Your task to perform on an android device: Add macbook to the cart on ebay Image 0: 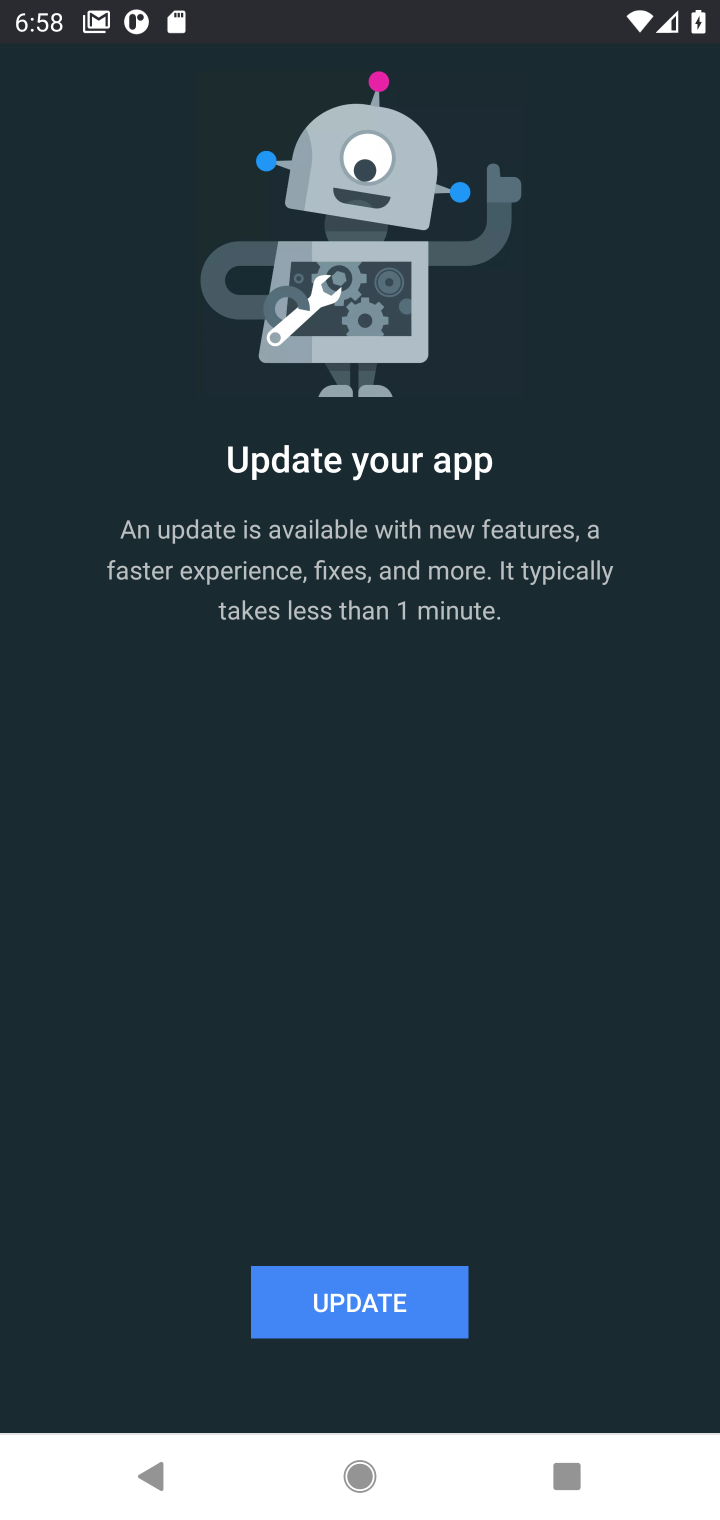
Step 0: press home button
Your task to perform on an android device: Add macbook to the cart on ebay Image 1: 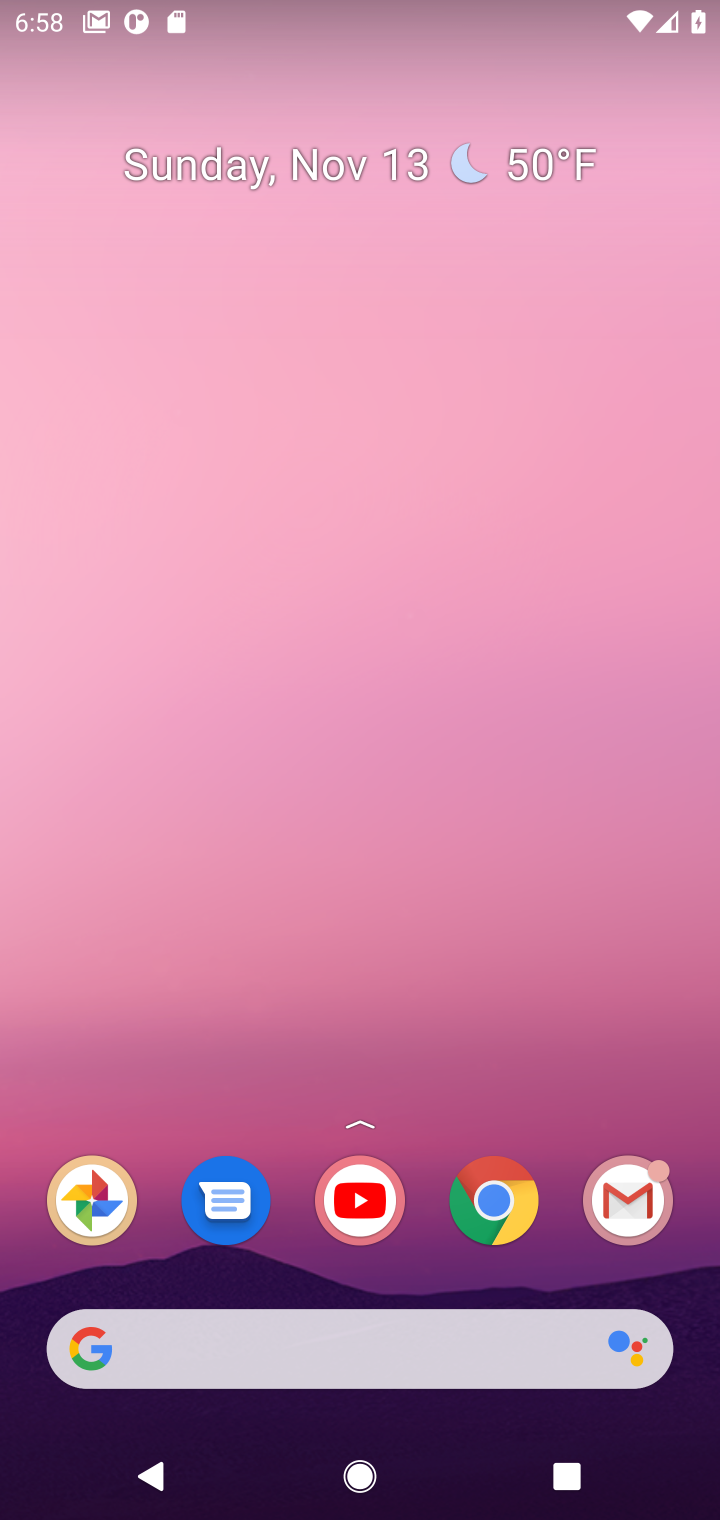
Step 1: click (494, 1191)
Your task to perform on an android device: Add macbook to the cart on ebay Image 2: 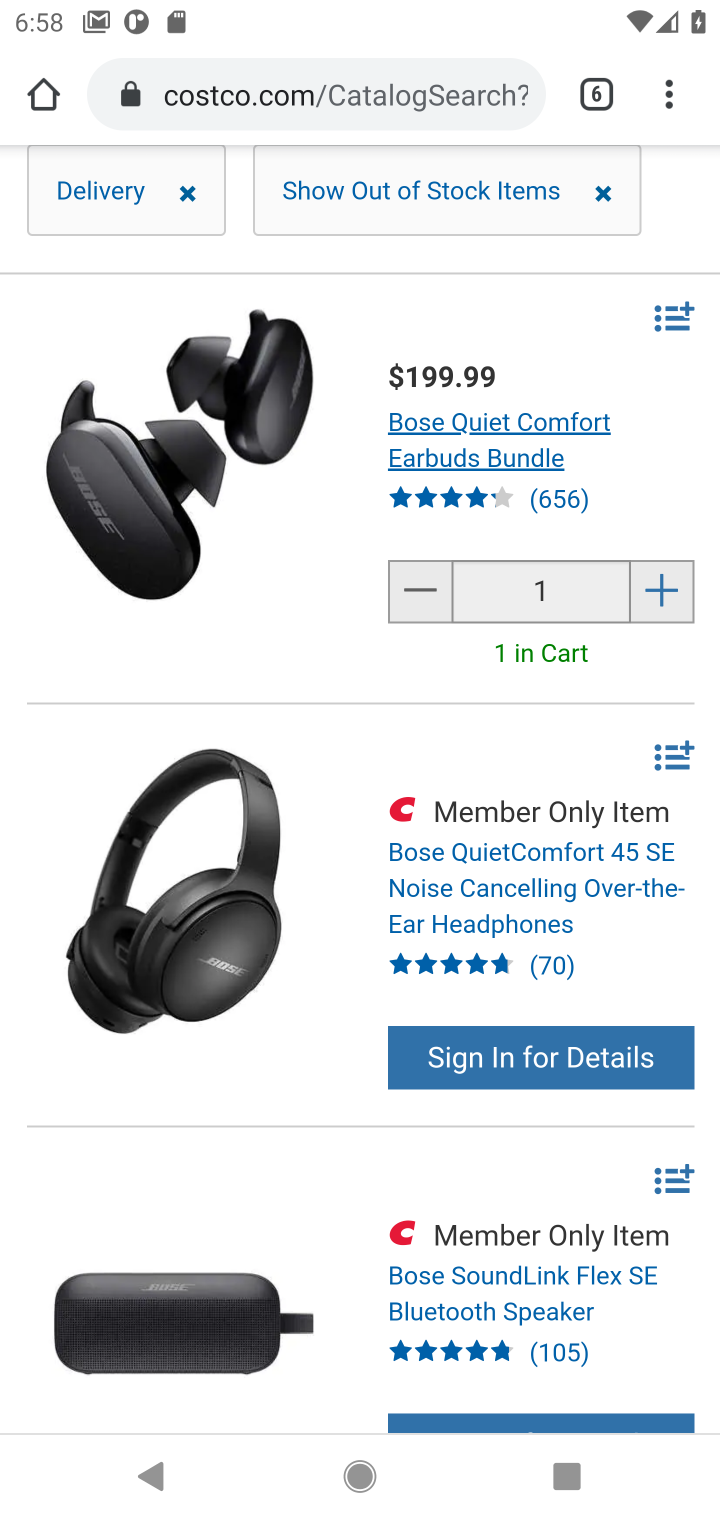
Step 2: click (601, 83)
Your task to perform on an android device: Add macbook to the cart on ebay Image 3: 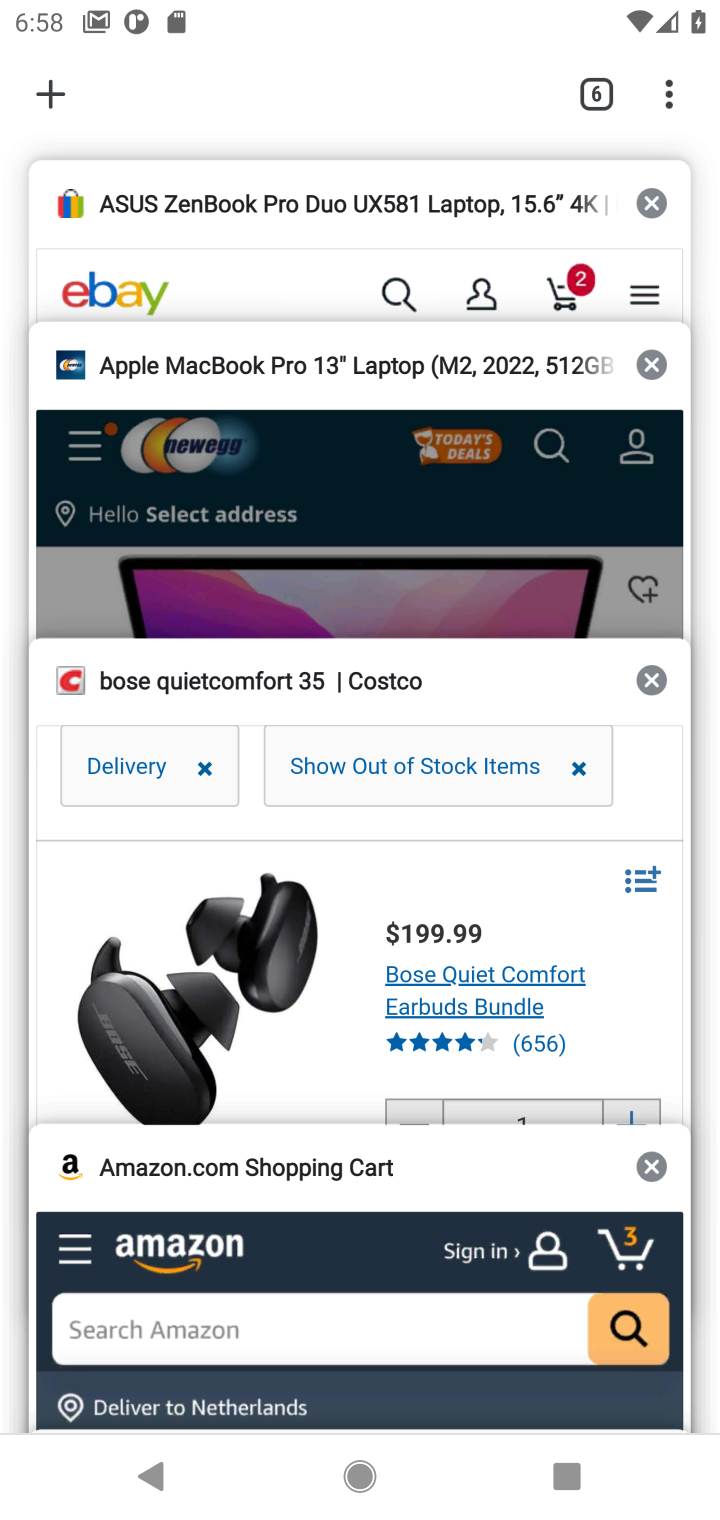
Step 3: click (346, 260)
Your task to perform on an android device: Add macbook to the cart on ebay Image 4: 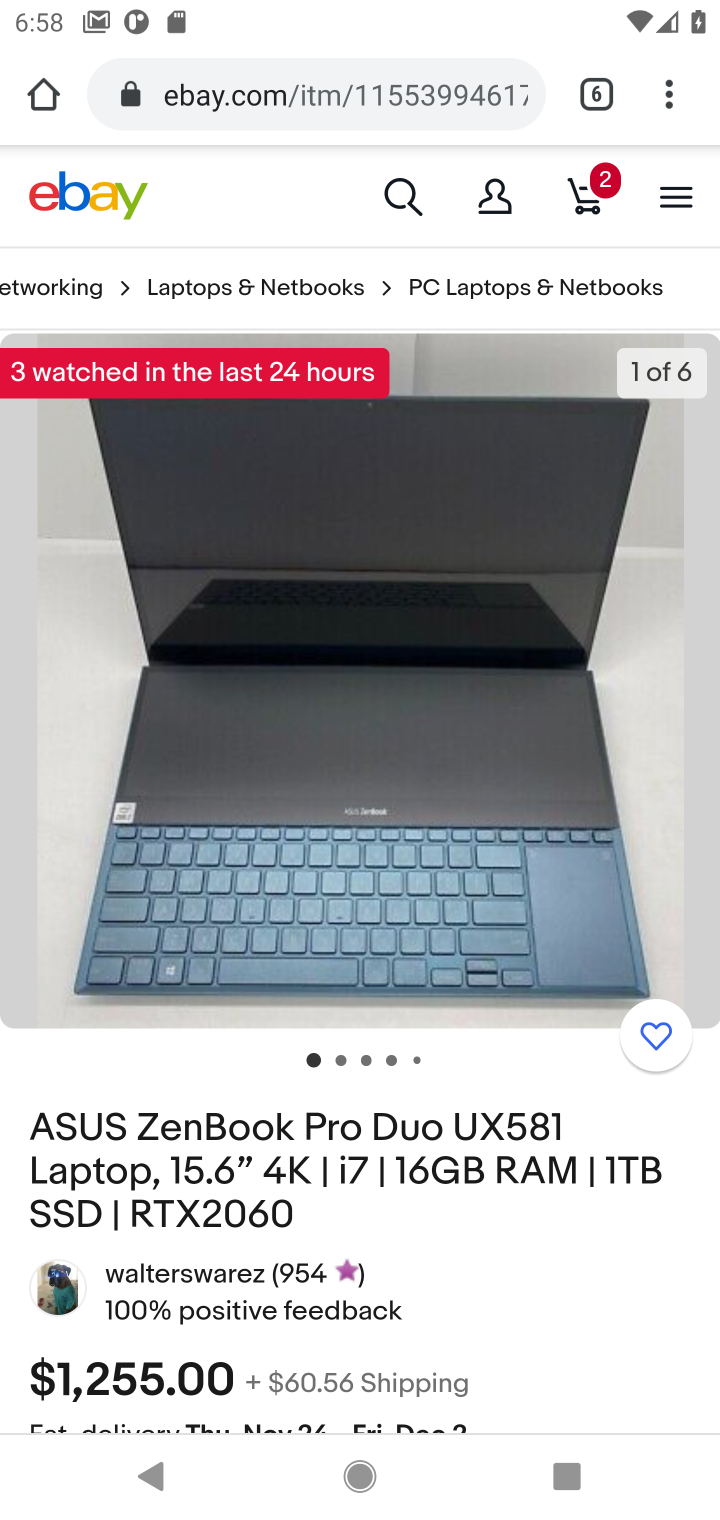
Step 4: click (391, 198)
Your task to perform on an android device: Add macbook to the cart on ebay Image 5: 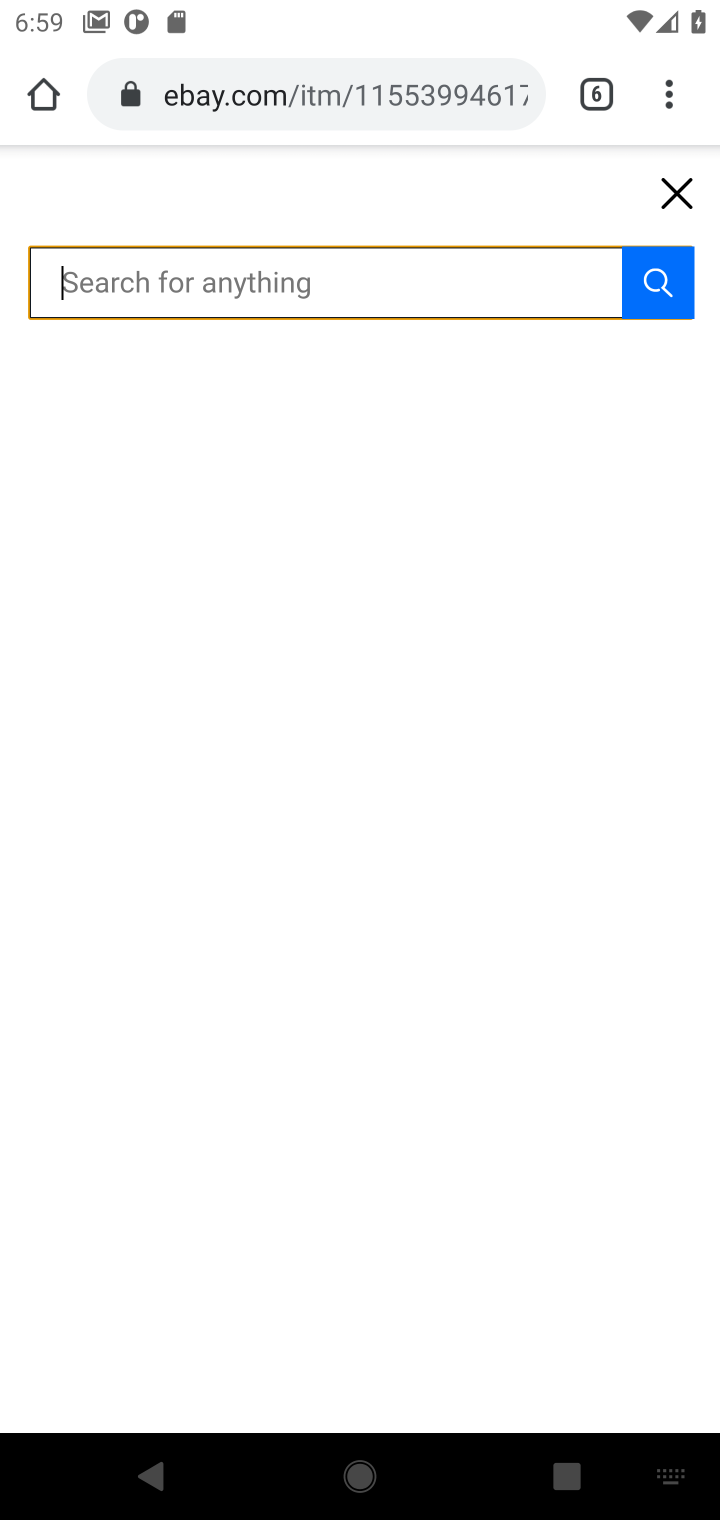
Step 5: type "macbook"
Your task to perform on an android device: Add macbook to the cart on ebay Image 6: 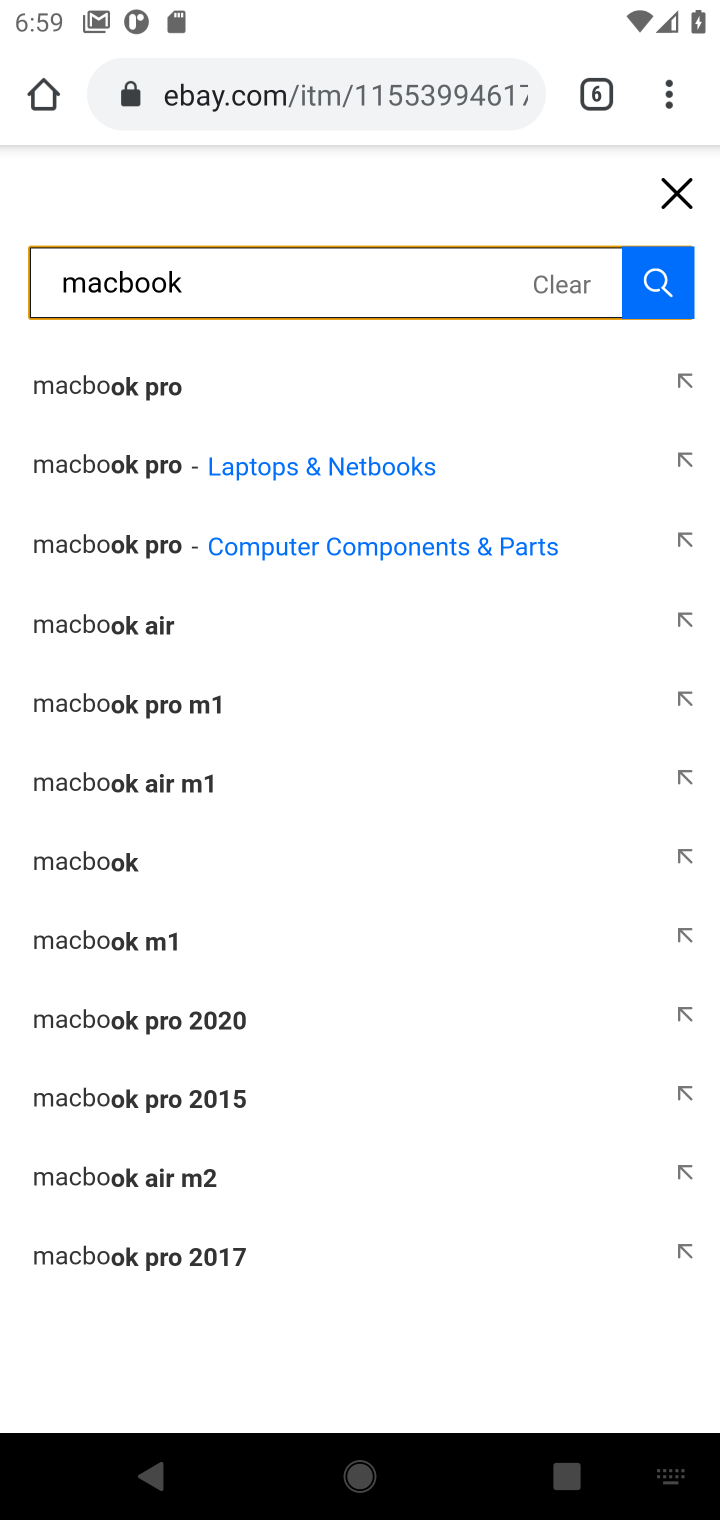
Step 6: click (646, 280)
Your task to perform on an android device: Add macbook to the cart on ebay Image 7: 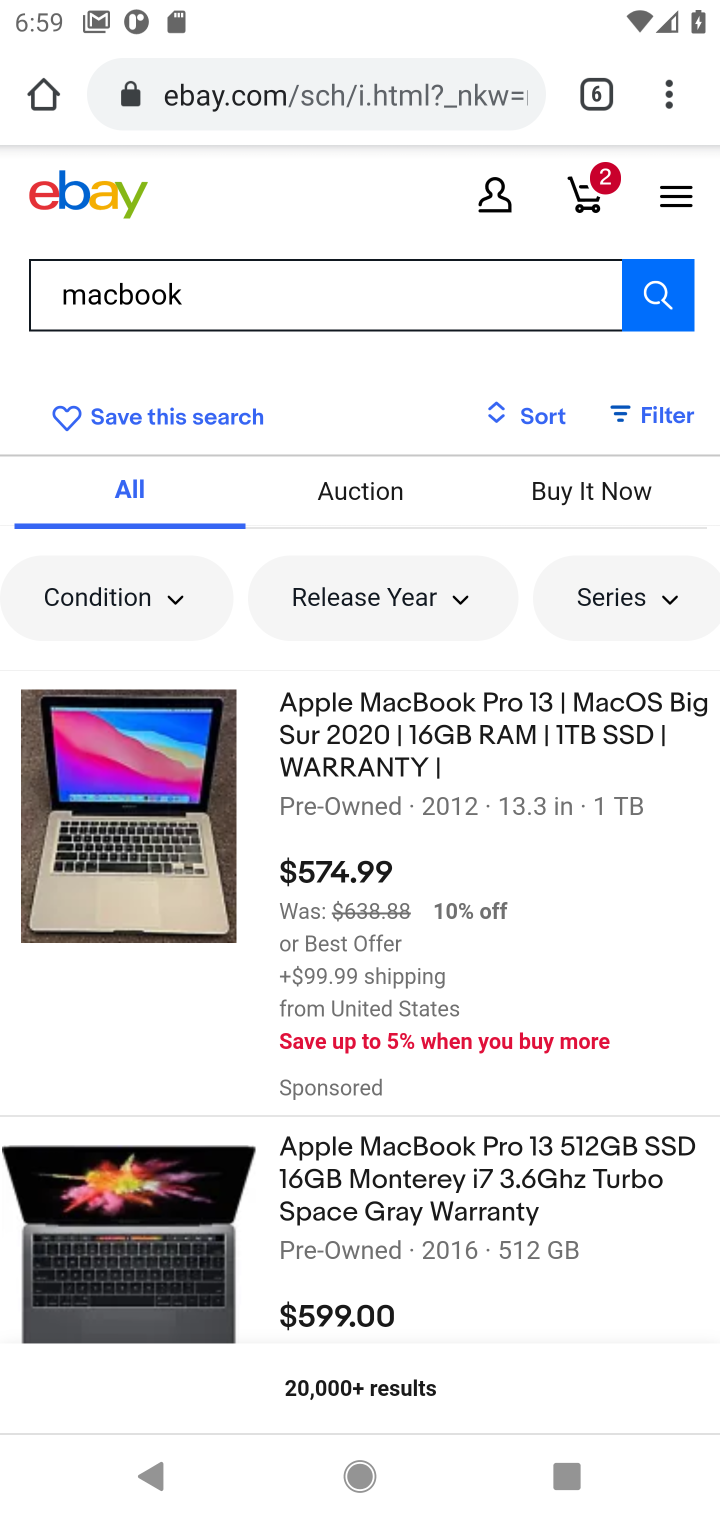
Step 7: click (509, 729)
Your task to perform on an android device: Add macbook to the cart on ebay Image 8: 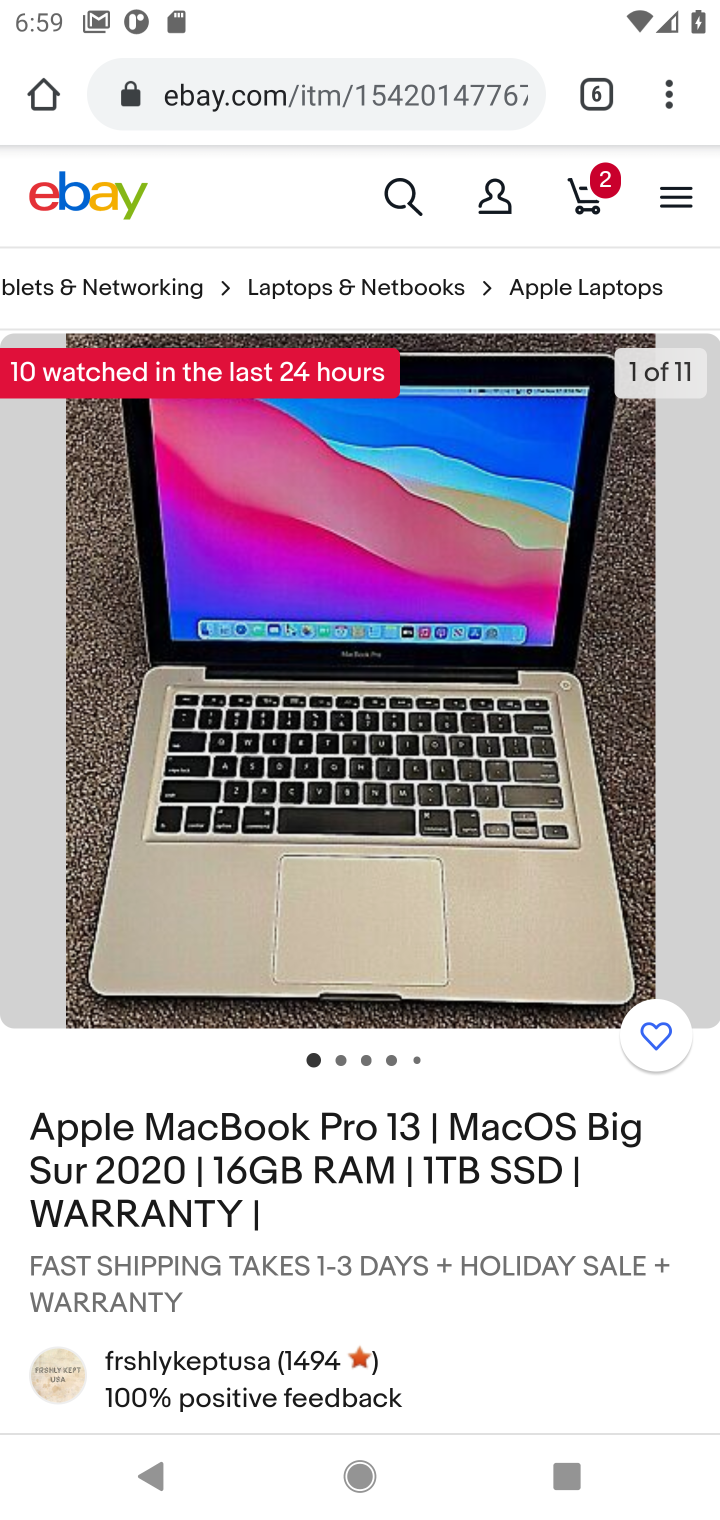
Step 8: drag from (480, 1364) to (524, 899)
Your task to perform on an android device: Add macbook to the cart on ebay Image 9: 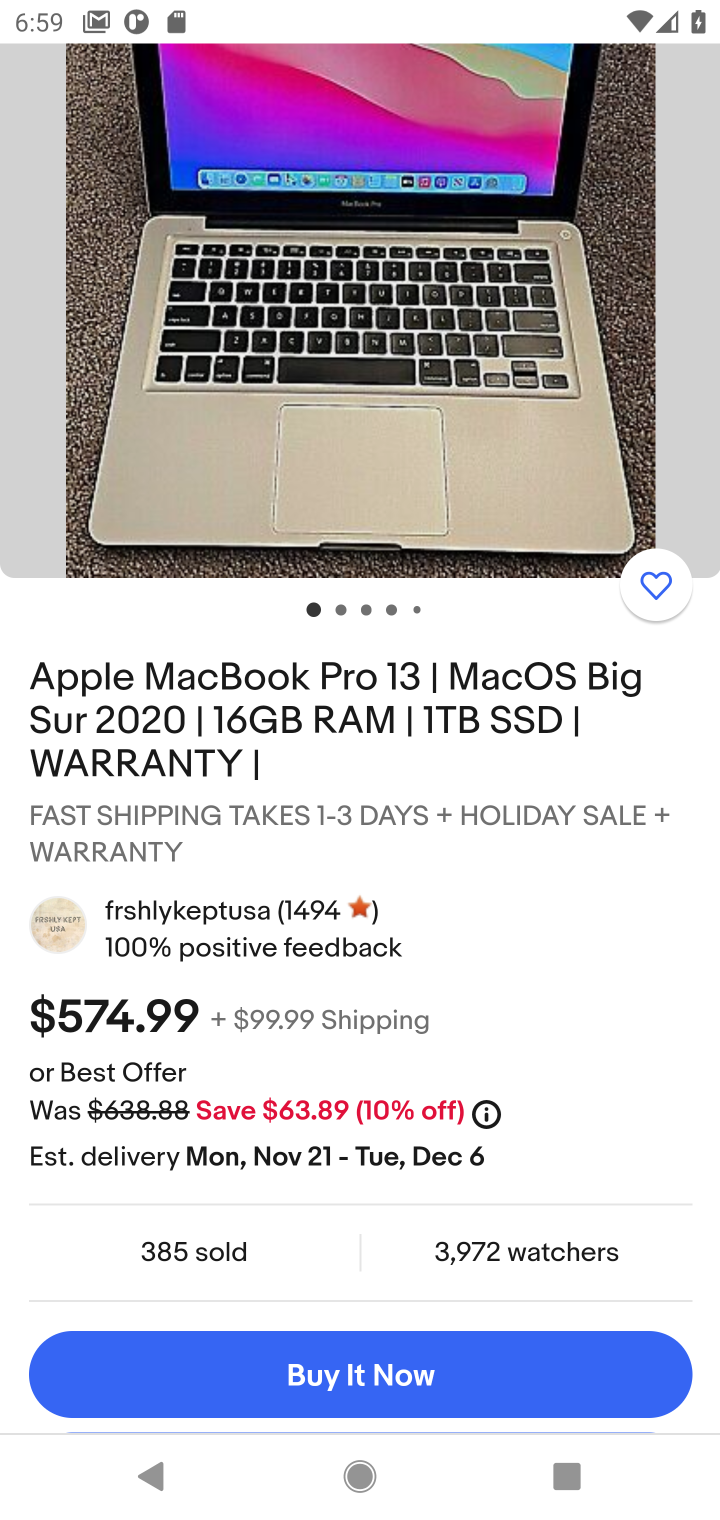
Step 9: click (498, 1099)
Your task to perform on an android device: Add macbook to the cart on ebay Image 10: 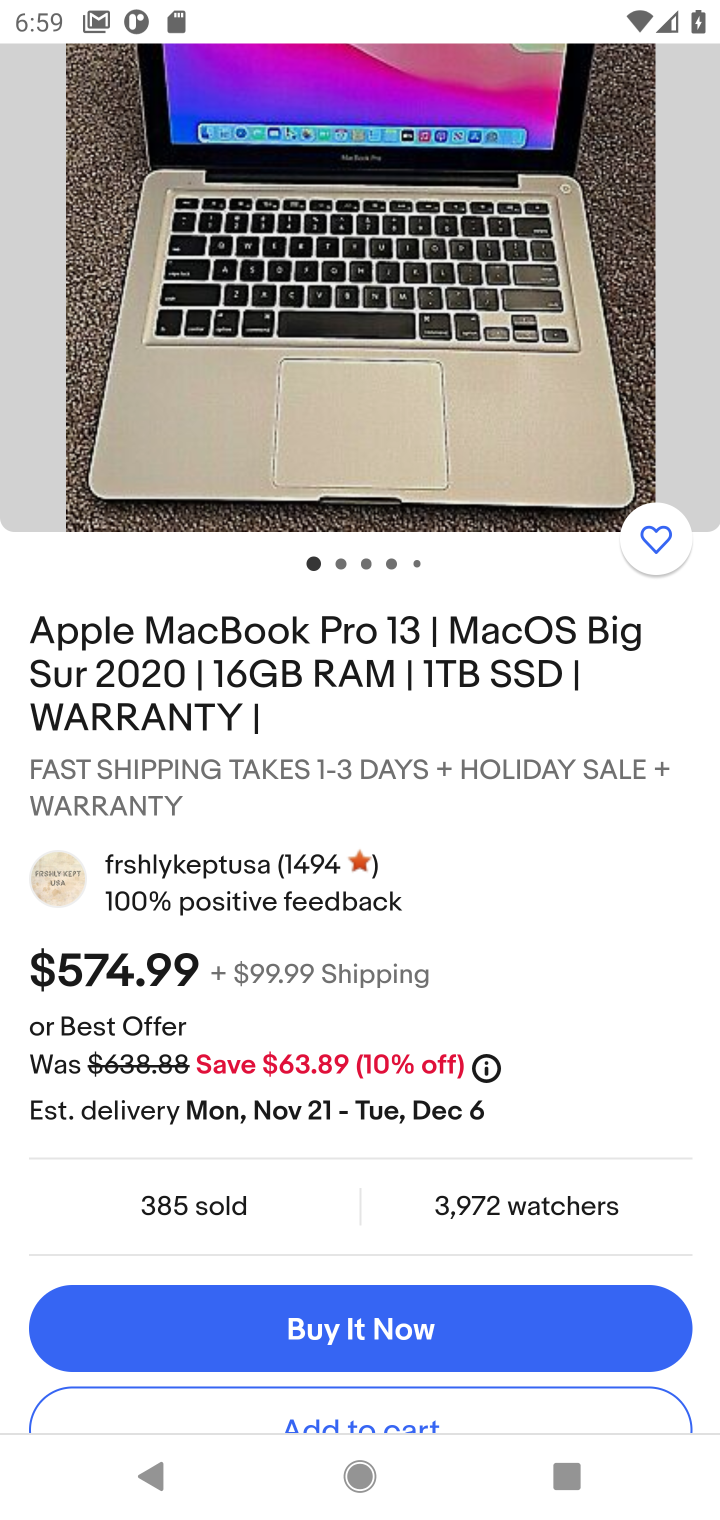
Step 10: drag from (536, 984) to (644, 22)
Your task to perform on an android device: Add macbook to the cart on ebay Image 11: 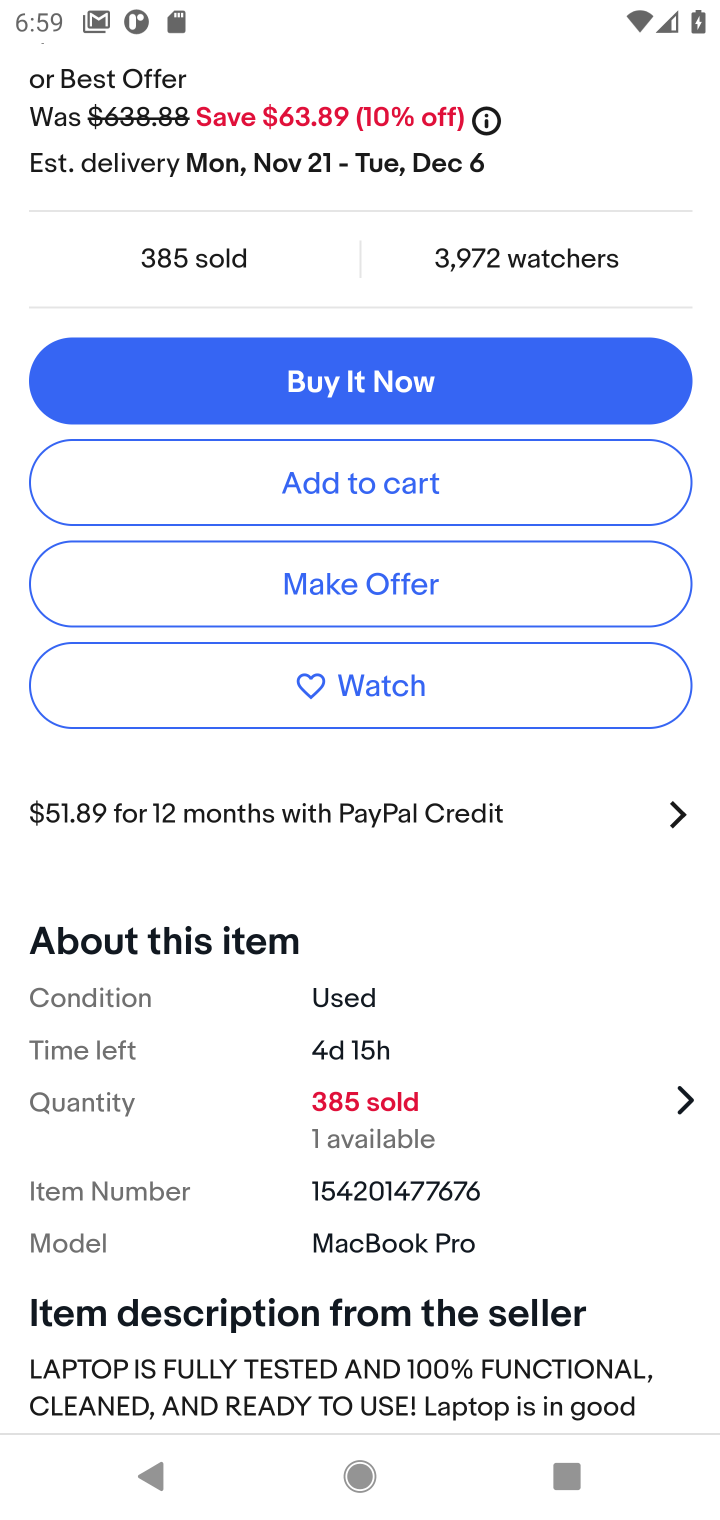
Step 11: click (461, 476)
Your task to perform on an android device: Add macbook to the cart on ebay Image 12: 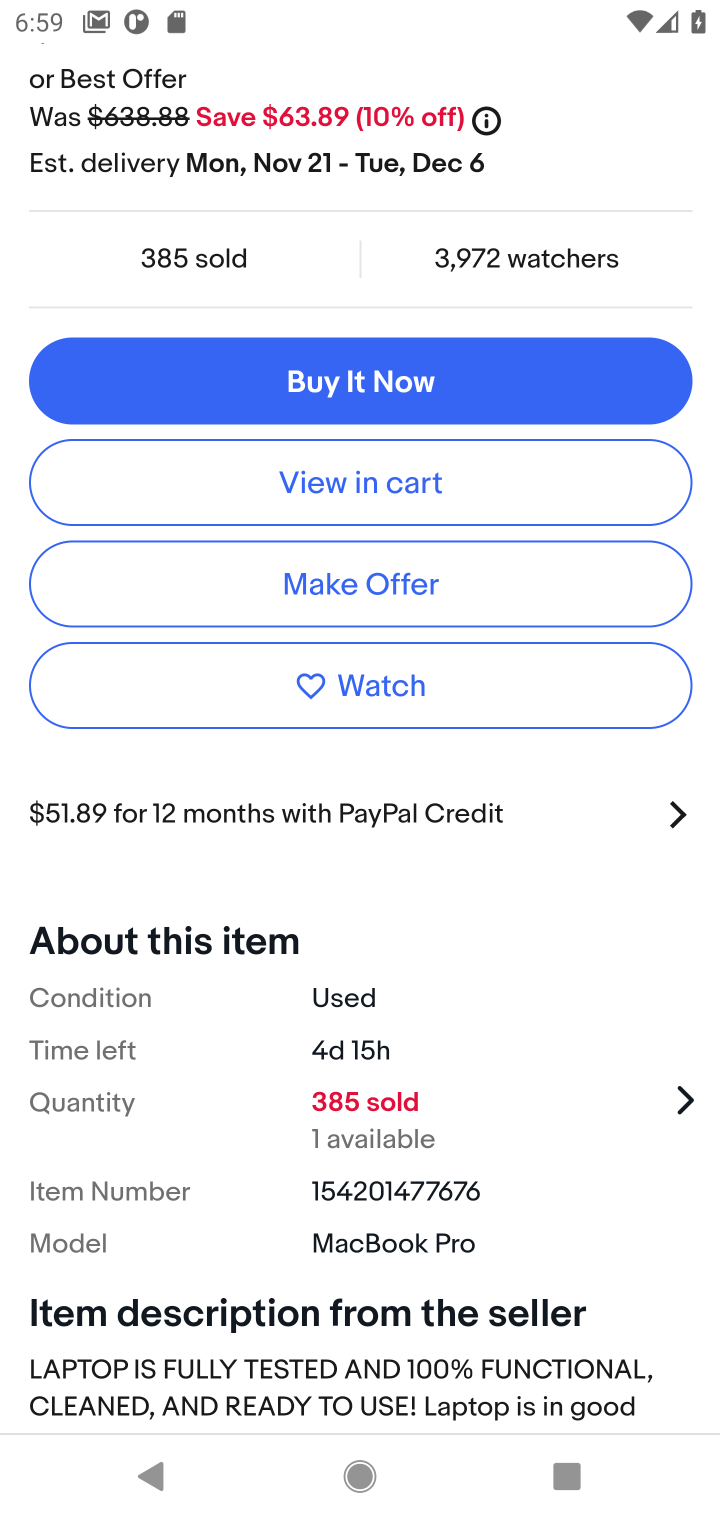
Step 12: task complete